Your task to perform on an android device: Toggle the flashlight Image 0: 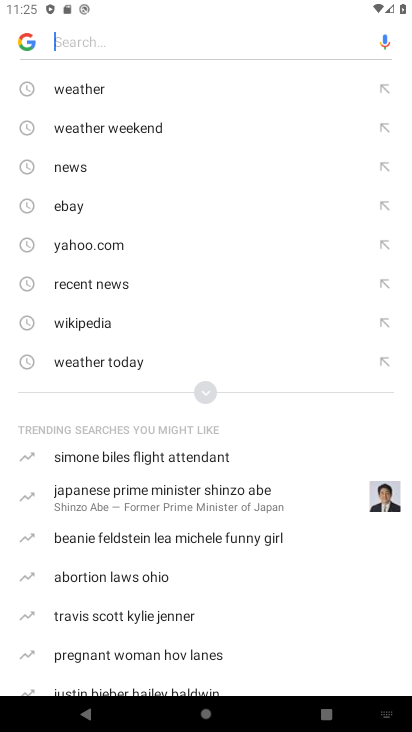
Step 0: press home button
Your task to perform on an android device: Toggle the flashlight Image 1: 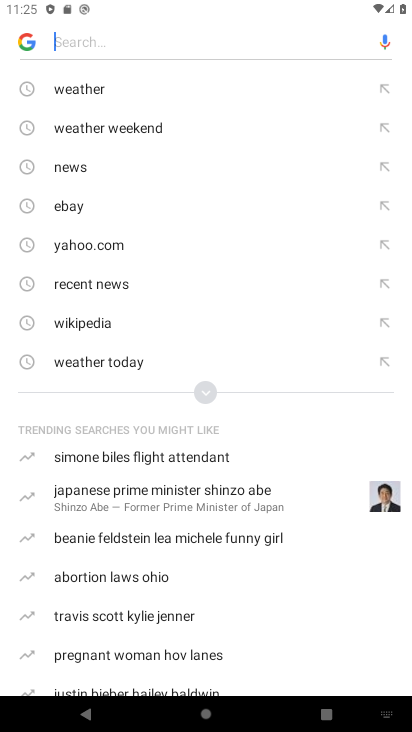
Step 1: press home button
Your task to perform on an android device: Toggle the flashlight Image 2: 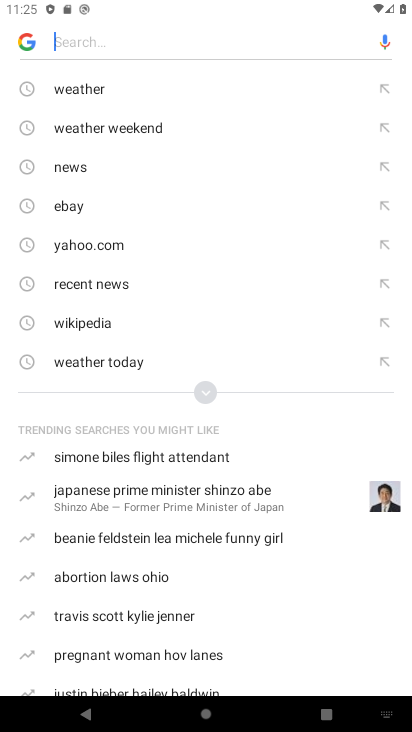
Step 2: click (232, 89)
Your task to perform on an android device: Toggle the flashlight Image 3: 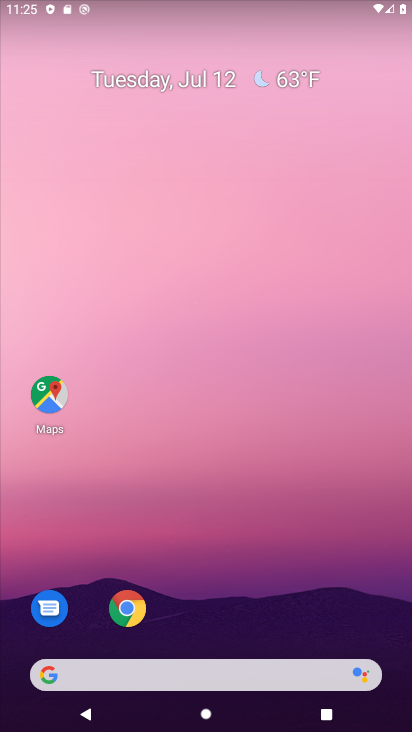
Step 3: drag from (190, 620) to (259, 108)
Your task to perform on an android device: Toggle the flashlight Image 4: 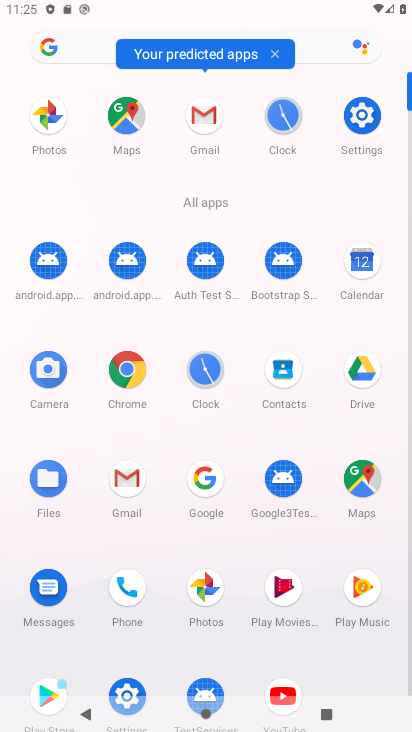
Step 4: click (357, 113)
Your task to perform on an android device: Toggle the flashlight Image 5: 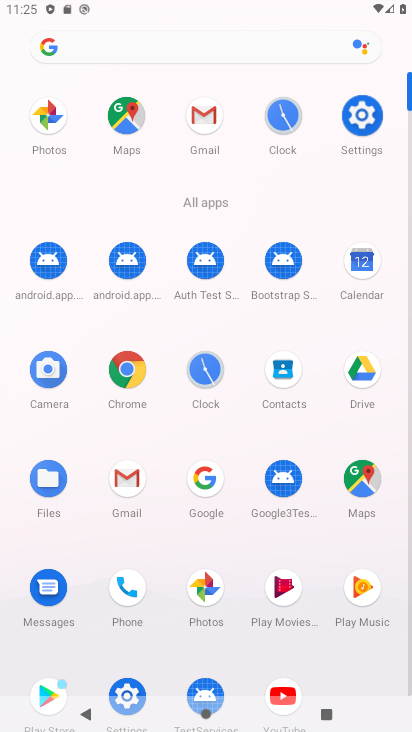
Step 5: click (354, 122)
Your task to perform on an android device: Toggle the flashlight Image 6: 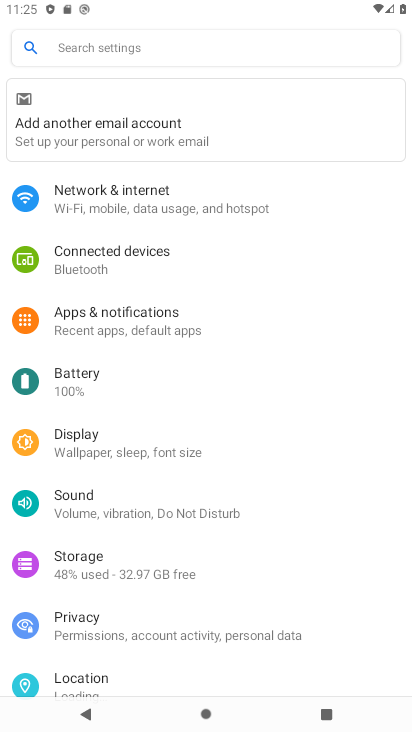
Step 6: drag from (181, 566) to (198, 267)
Your task to perform on an android device: Toggle the flashlight Image 7: 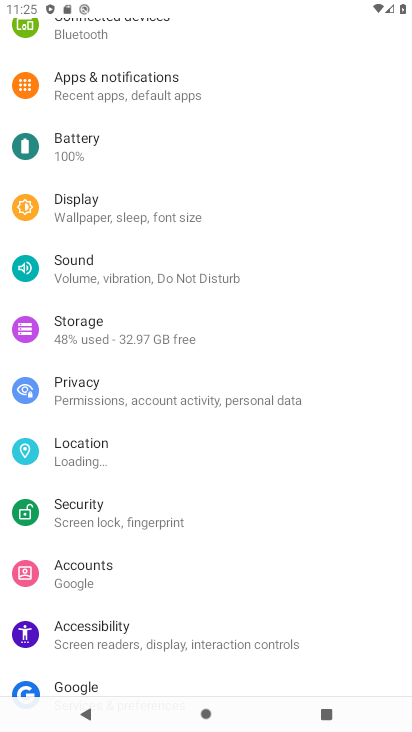
Step 7: drag from (205, 198) to (409, 718)
Your task to perform on an android device: Toggle the flashlight Image 8: 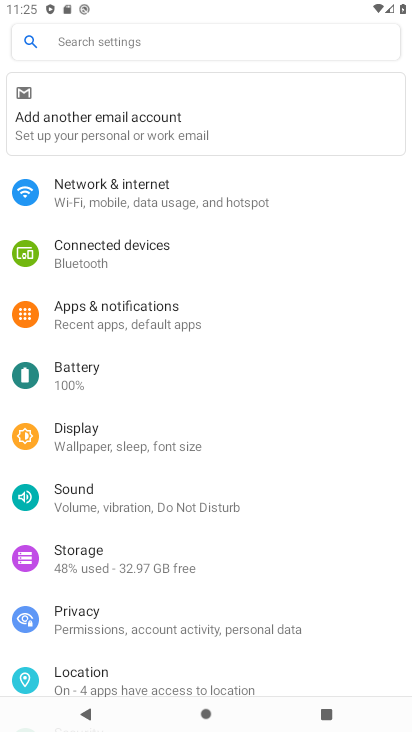
Step 8: click (165, 48)
Your task to perform on an android device: Toggle the flashlight Image 9: 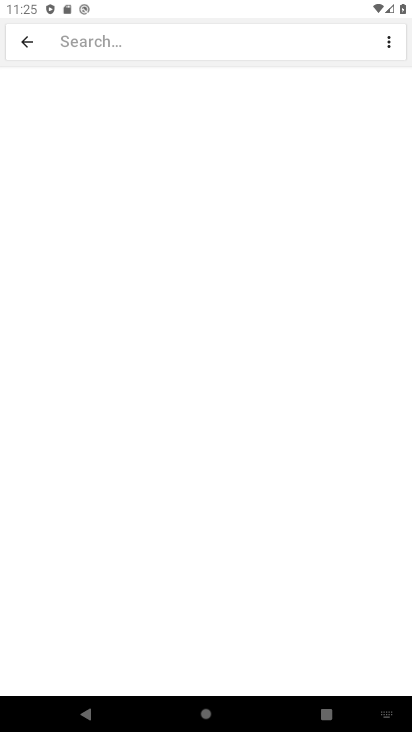
Step 9: type "flashlight"
Your task to perform on an android device: Toggle the flashlight Image 10: 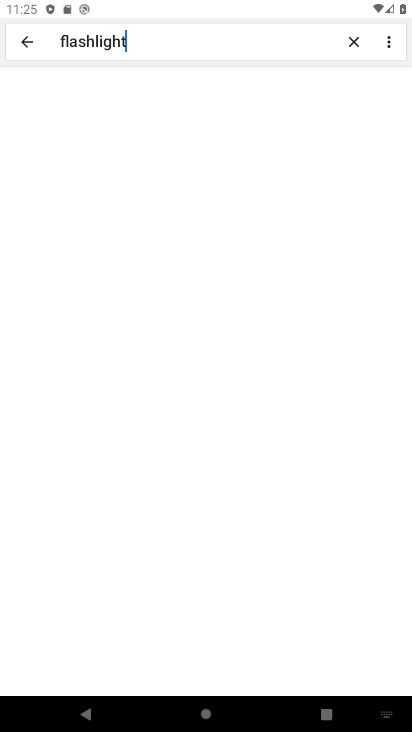
Step 10: type ""
Your task to perform on an android device: Toggle the flashlight Image 11: 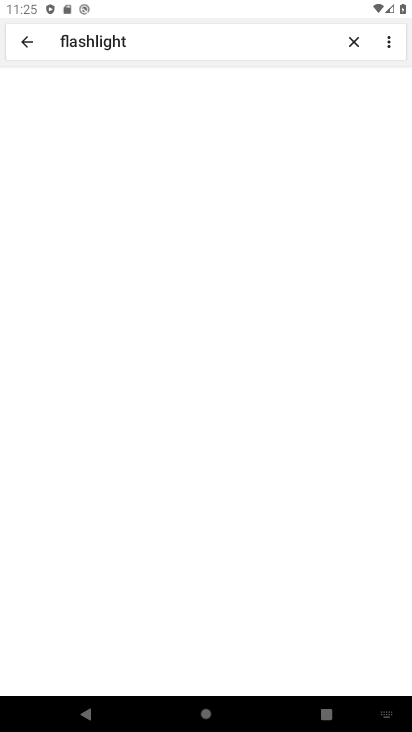
Step 11: click (170, 94)
Your task to perform on an android device: Toggle the flashlight Image 12: 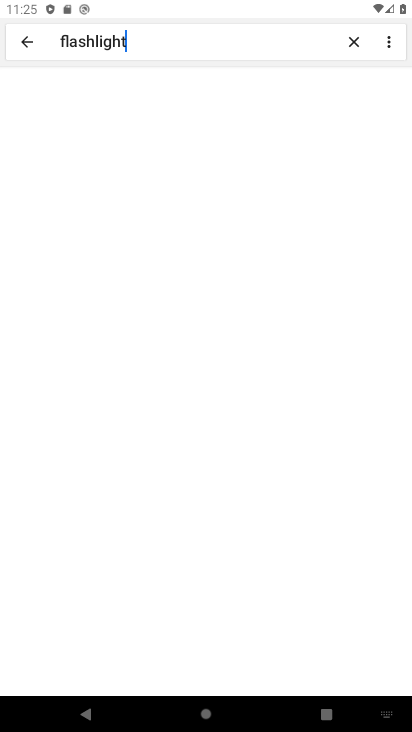
Step 12: click (154, 95)
Your task to perform on an android device: Toggle the flashlight Image 13: 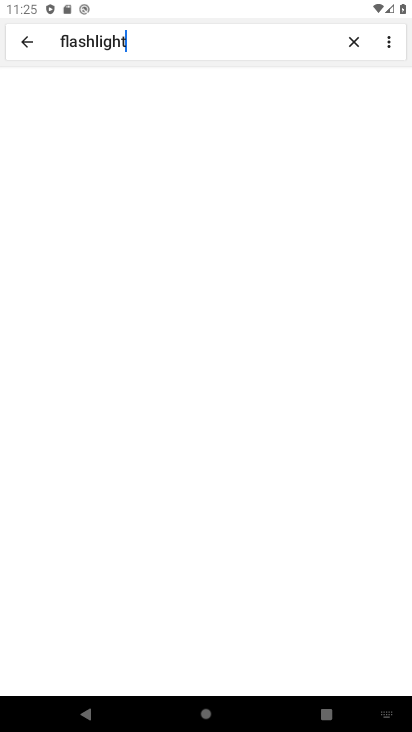
Step 13: click (134, 92)
Your task to perform on an android device: Toggle the flashlight Image 14: 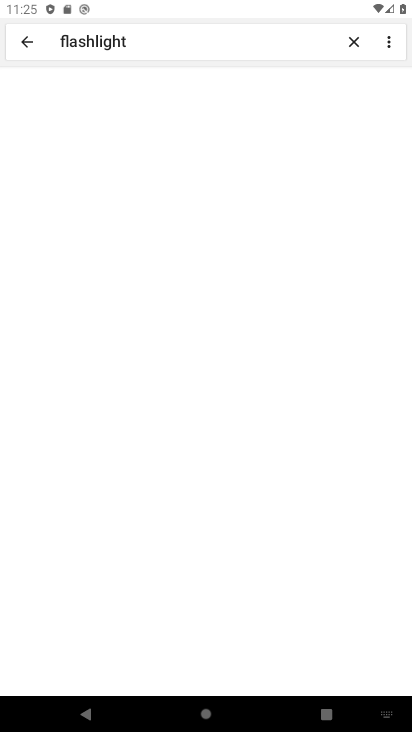
Step 14: click (112, 89)
Your task to perform on an android device: Toggle the flashlight Image 15: 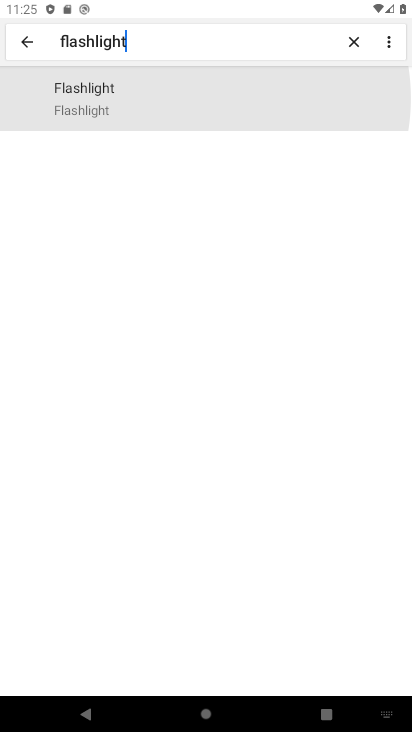
Step 15: click (132, 66)
Your task to perform on an android device: Toggle the flashlight Image 16: 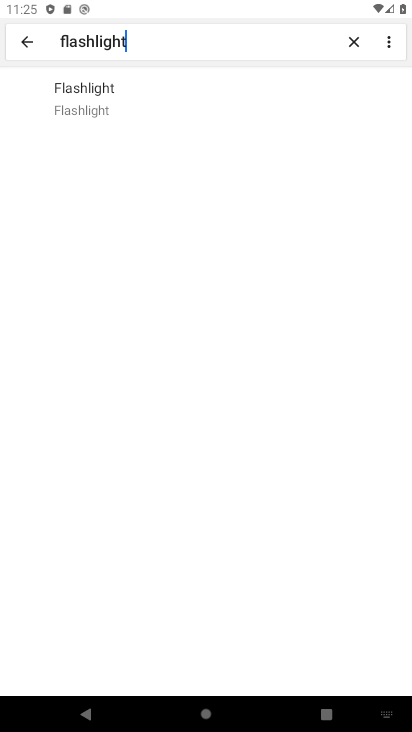
Step 16: click (99, 91)
Your task to perform on an android device: Toggle the flashlight Image 17: 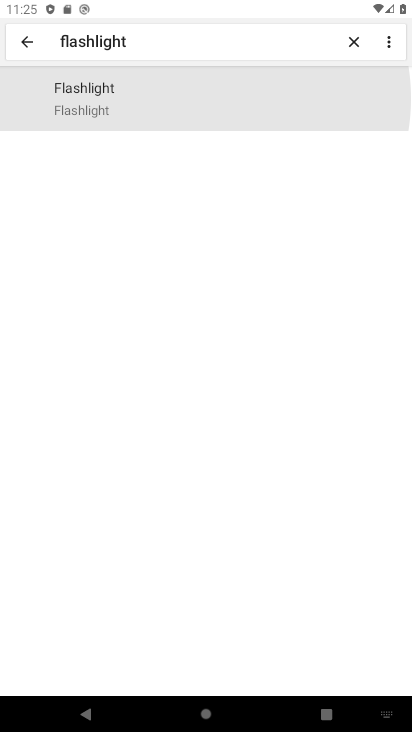
Step 17: click (99, 93)
Your task to perform on an android device: Toggle the flashlight Image 18: 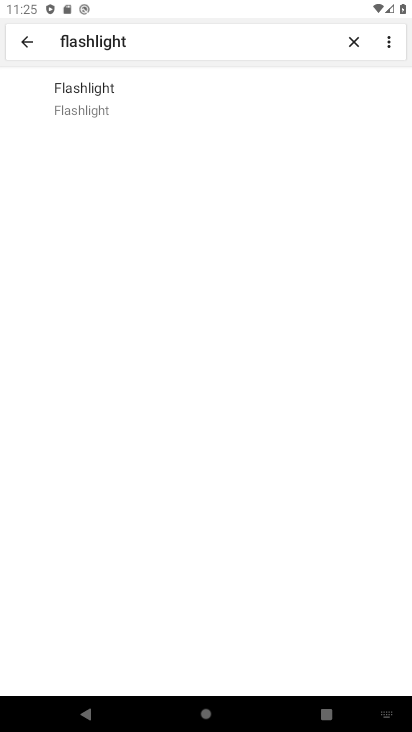
Step 18: task complete